Your task to perform on an android device: What's on my calendar today? Image 0: 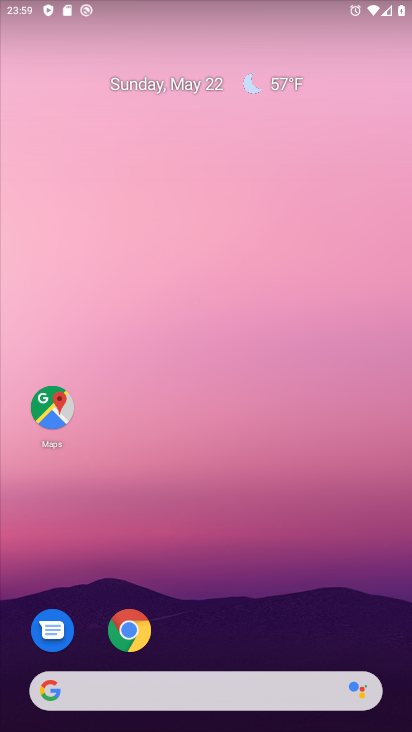
Step 0: click (158, 84)
Your task to perform on an android device: What's on my calendar today? Image 1: 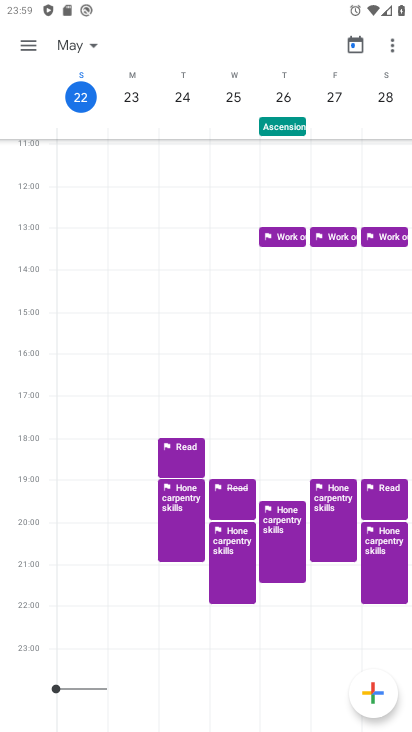
Step 1: task complete